Your task to perform on an android device: Show the shopping cart on costco.com. Add "acer nitro" to the cart on costco.com, then select checkout. Image 0: 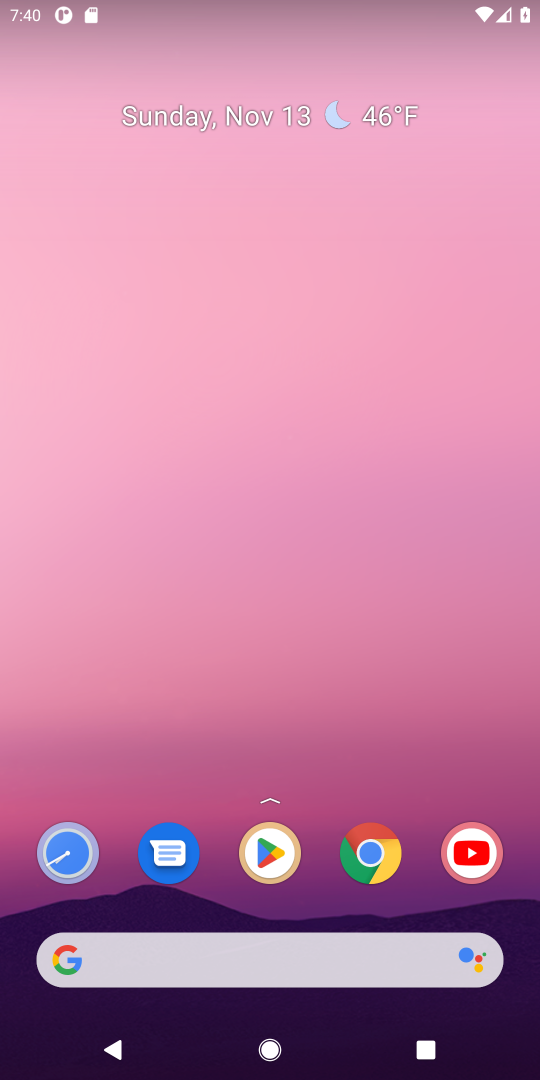
Step 0: click (106, 959)
Your task to perform on an android device: Show the shopping cart on costco.com. Add "acer nitro" to the cart on costco.com, then select checkout. Image 1: 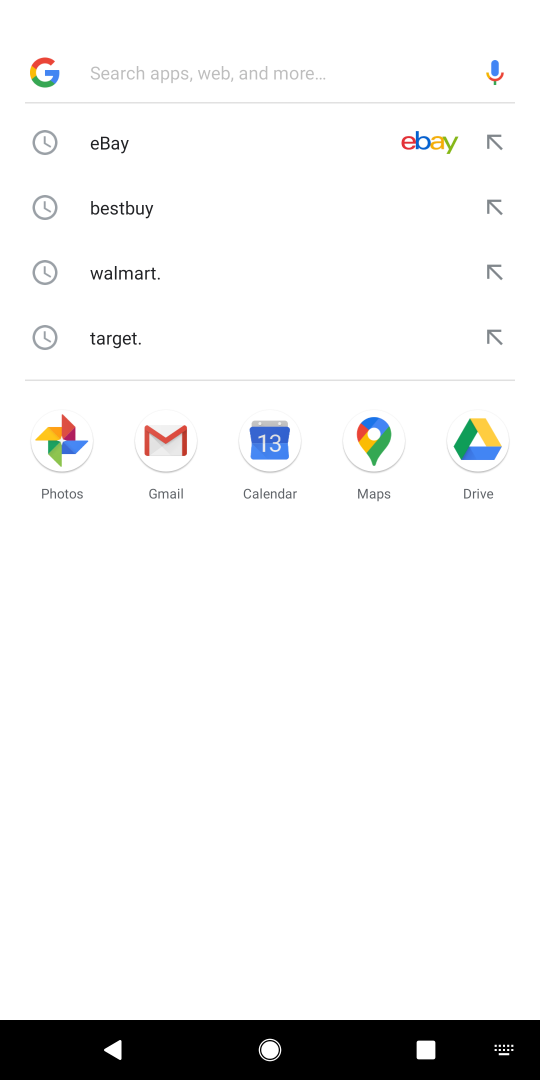
Step 1: type "costco.com"
Your task to perform on an android device: Show the shopping cart on costco.com. Add "acer nitro" to the cart on costco.com, then select checkout. Image 2: 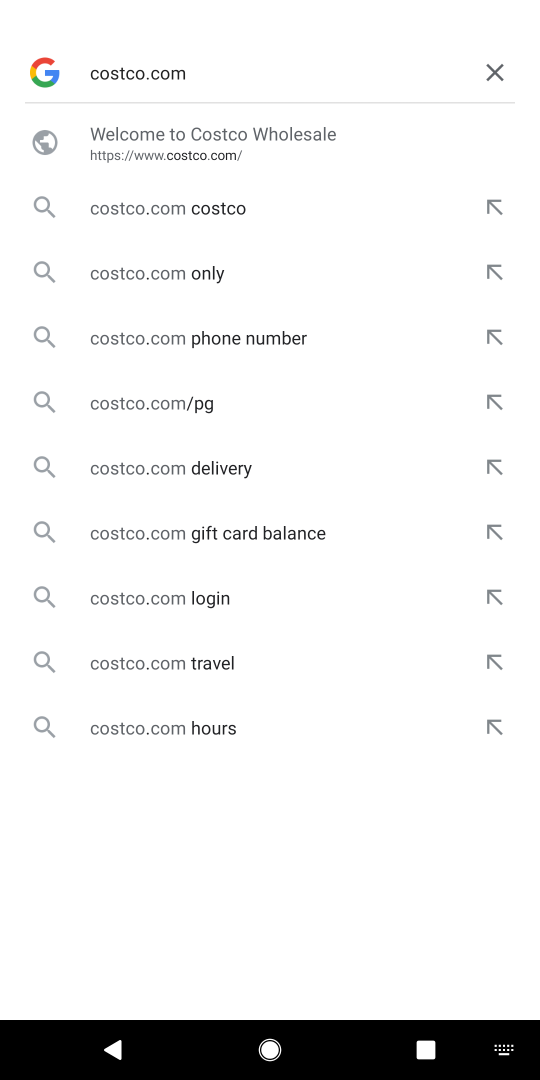
Step 2: press enter
Your task to perform on an android device: Show the shopping cart on costco.com. Add "acer nitro" to the cart on costco.com, then select checkout. Image 3: 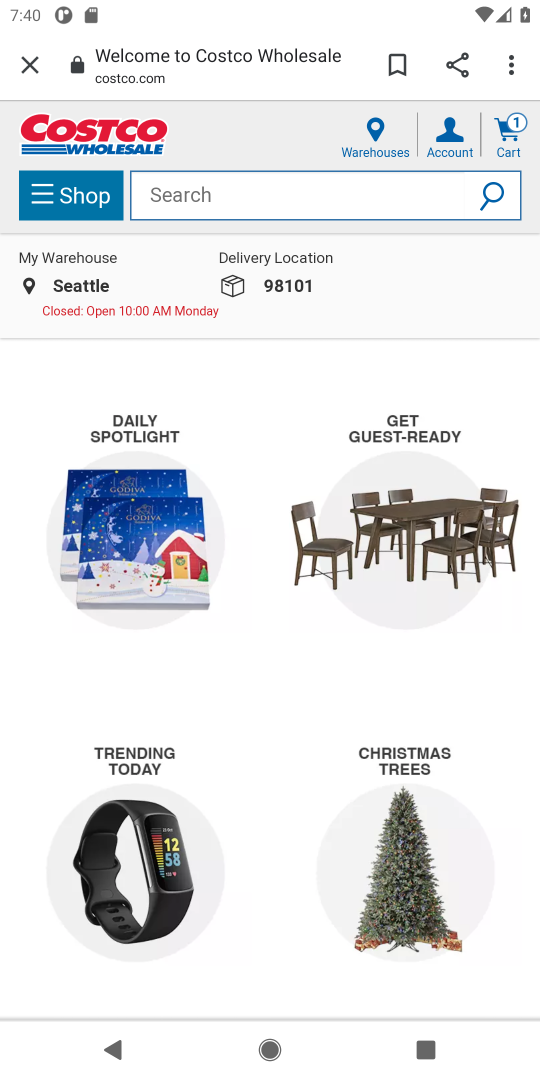
Step 3: click (509, 127)
Your task to perform on an android device: Show the shopping cart on costco.com. Add "acer nitro" to the cart on costco.com, then select checkout. Image 4: 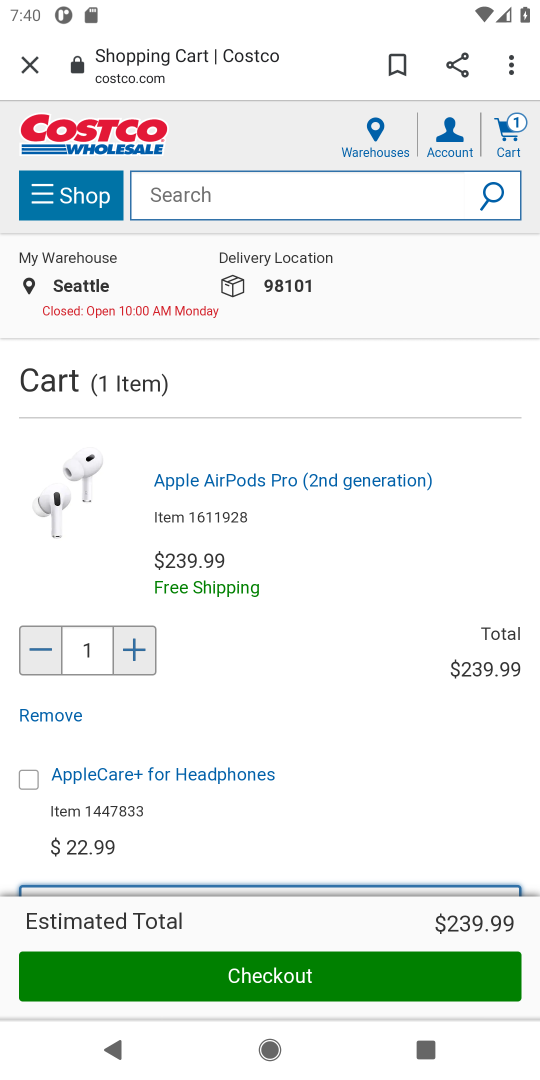
Step 4: click (188, 190)
Your task to perform on an android device: Show the shopping cart on costco.com. Add "acer nitro" to the cart on costco.com, then select checkout. Image 5: 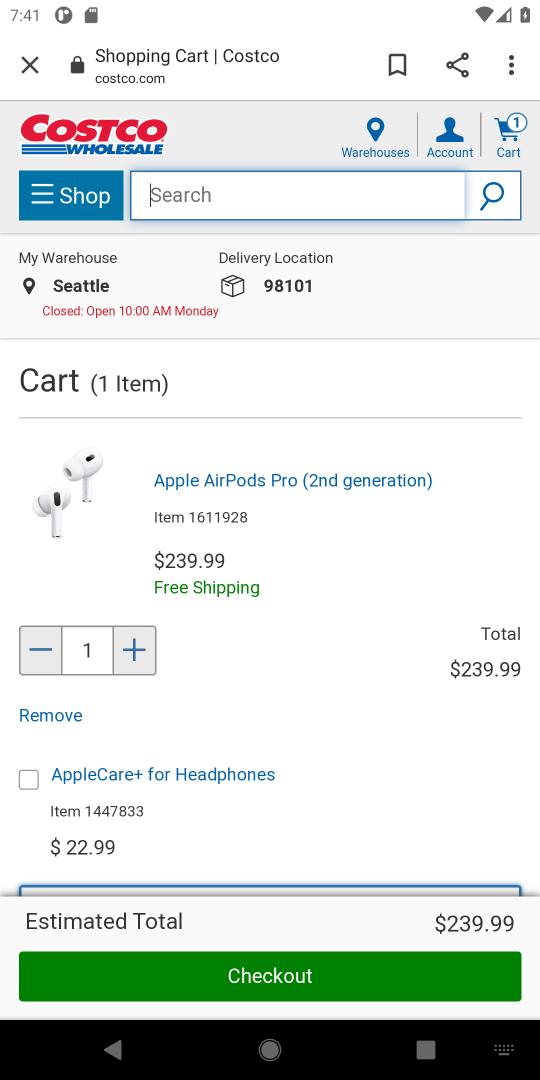
Step 5: type "acer nitro"
Your task to perform on an android device: Show the shopping cart on costco.com. Add "acer nitro" to the cart on costco.com, then select checkout. Image 6: 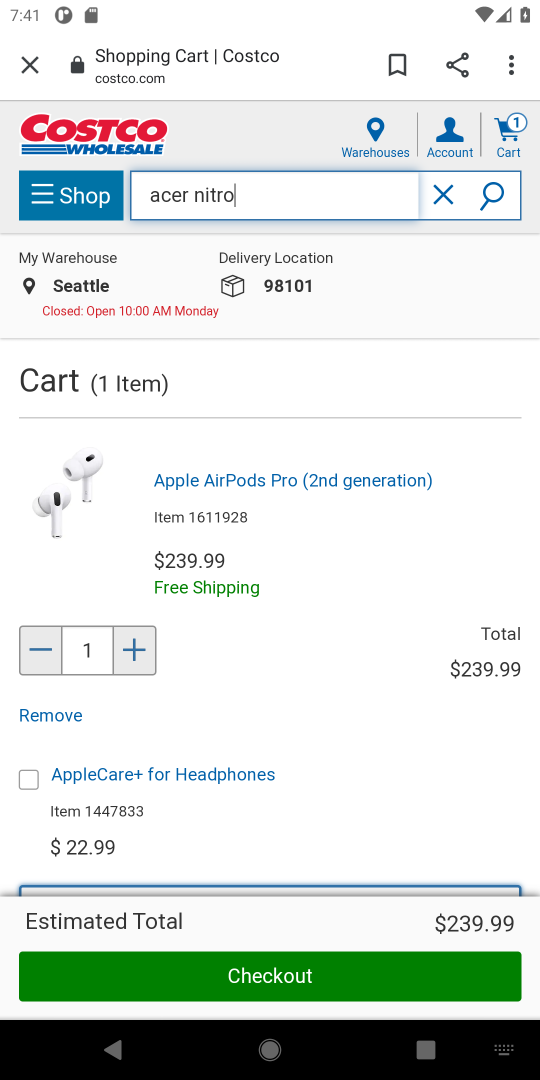
Step 6: press enter
Your task to perform on an android device: Show the shopping cart on costco.com. Add "acer nitro" to the cart on costco.com, then select checkout. Image 7: 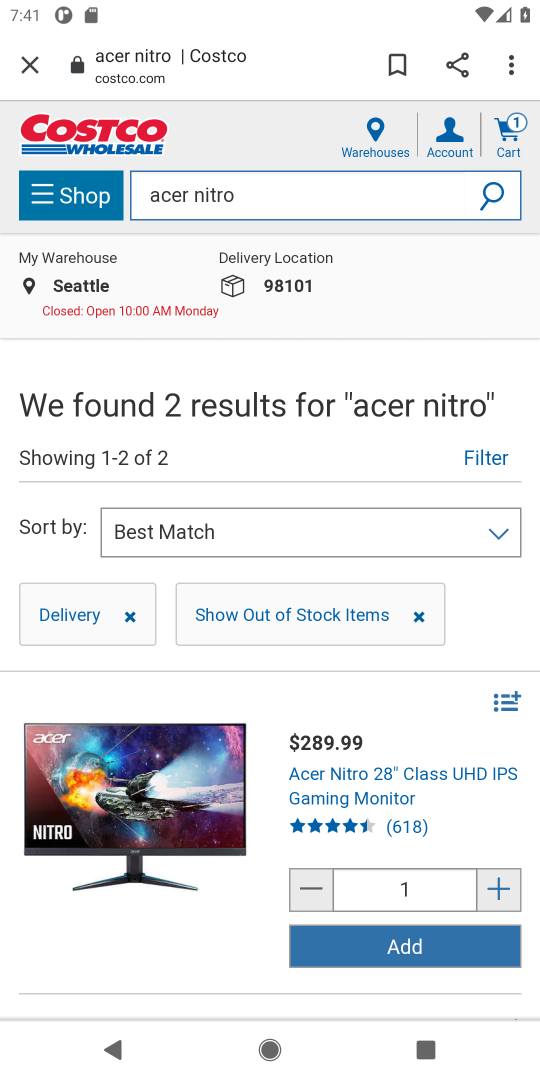
Step 7: drag from (365, 795) to (384, 391)
Your task to perform on an android device: Show the shopping cart on costco.com. Add "acer nitro" to the cart on costco.com, then select checkout. Image 8: 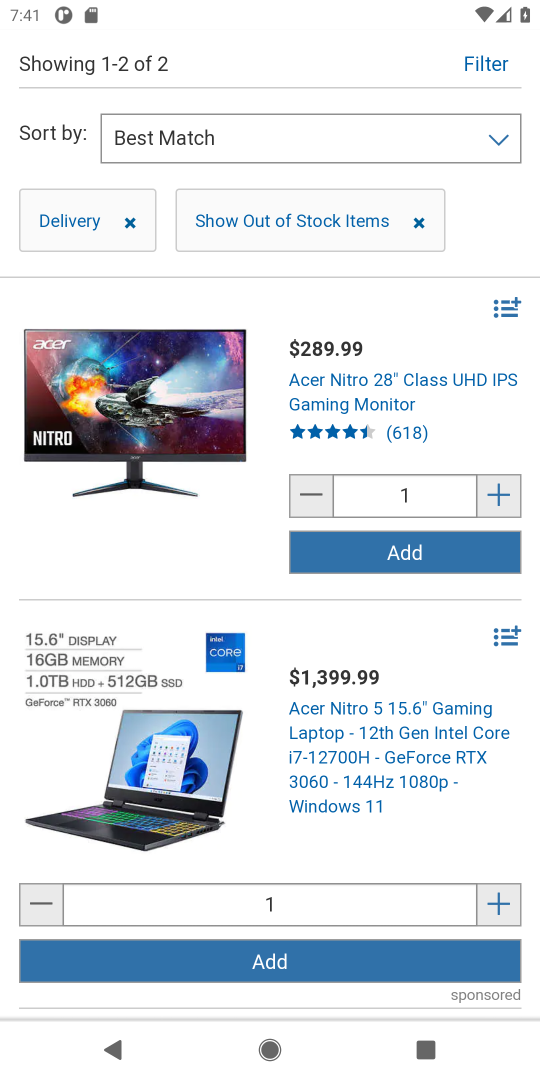
Step 8: click (406, 554)
Your task to perform on an android device: Show the shopping cart on costco.com. Add "acer nitro" to the cart on costco.com, then select checkout. Image 9: 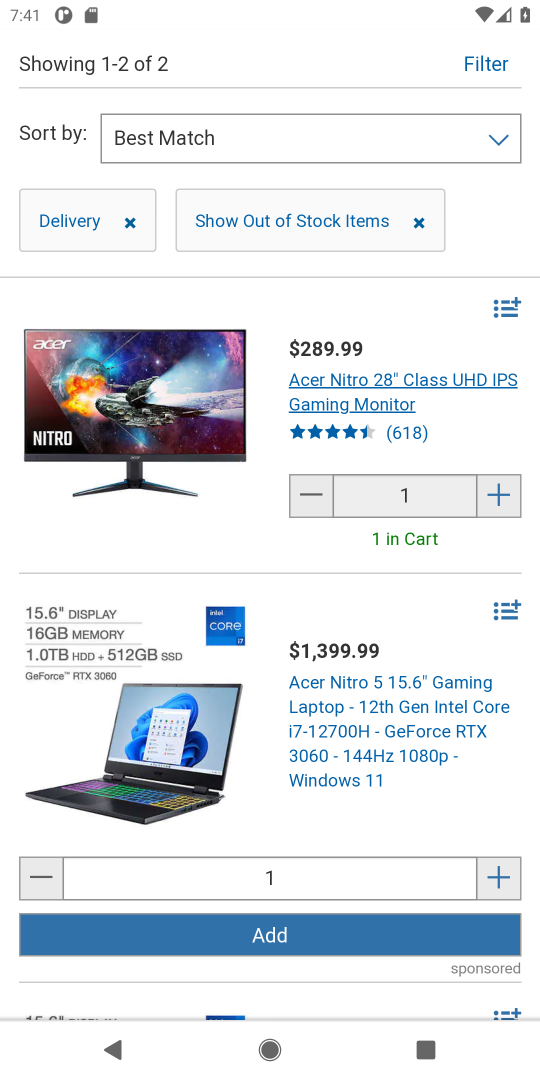
Step 9: drag from (314, 331) to (301, 710)
Your task to perform on an android device: Show the shopping cart on costco.com. Add "acer nitro" to the cart on costco.com, then select checkout. Image 10: 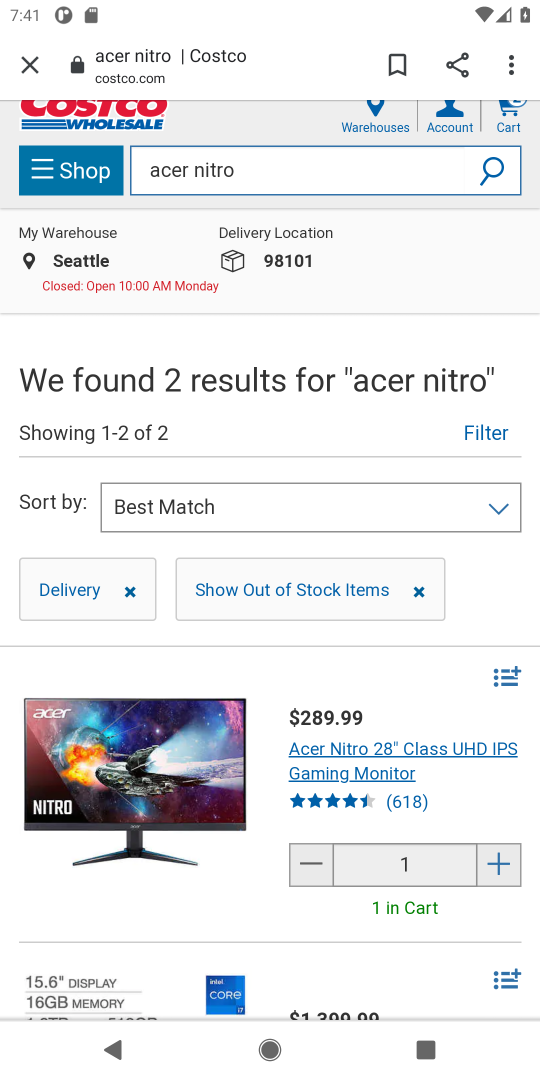
Step 10: click (512, 110)
Your task to perform on an android device: Show the shopping cart on costco.com. Add "acer nitro" to the cart on costco.com, then select checkout. Image 11: 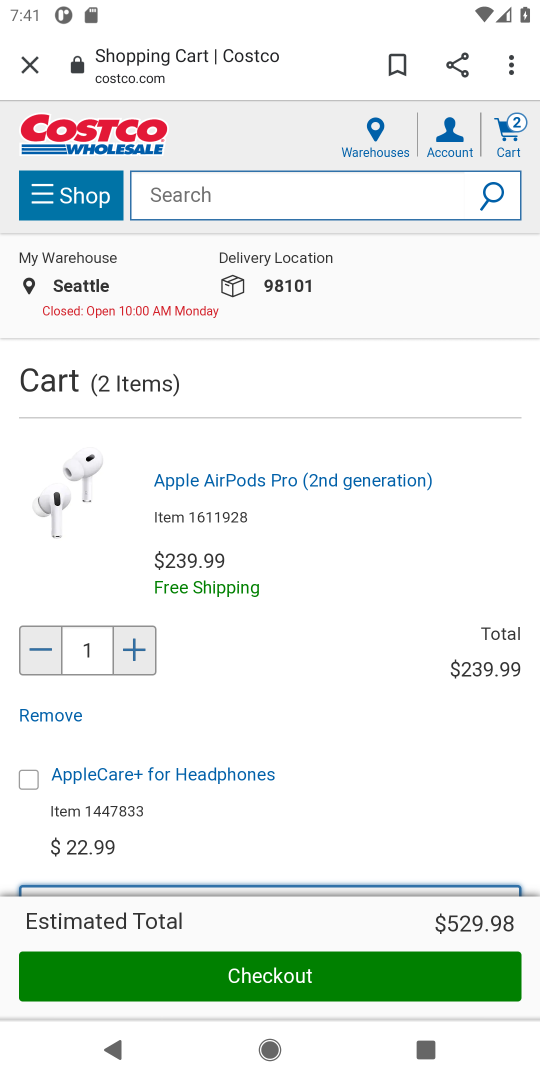
Step 11: click (260, 980)
Your task to perform on an android device: Show the shopping cart on costco.com. Add "acer nitro" to the cart on costco.com, then select checkout. Image 12: 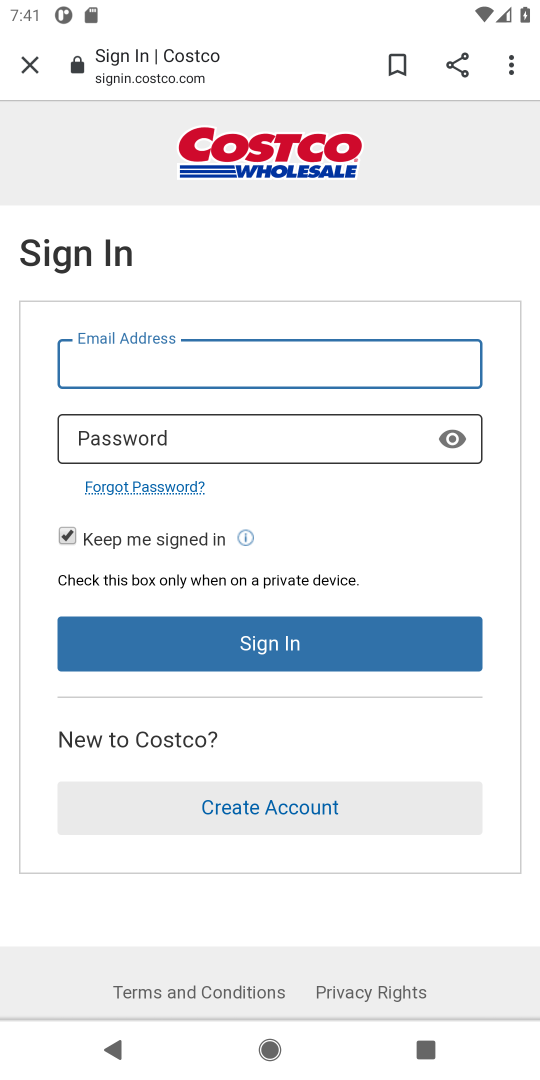
Step 12: task complete